Your task to perform on an android device: Open sound settings Image 0: 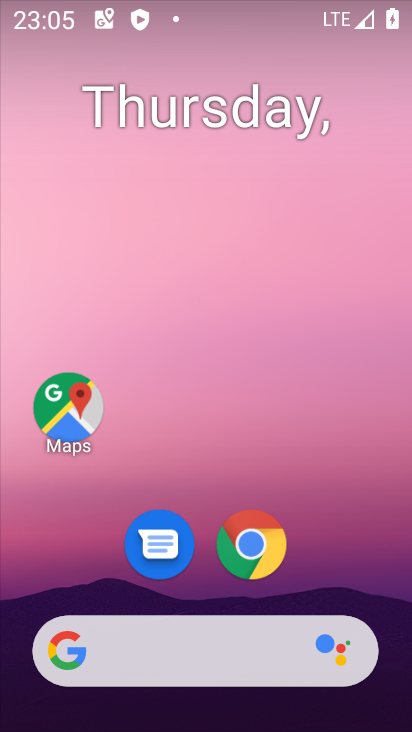
Step 0: press home button
Your task to perform on an android device: Open sound settings Image 1: 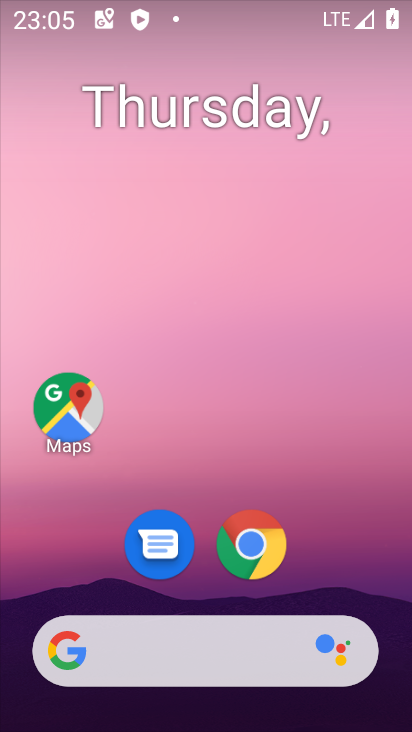
Step 1: drag from (364, 510) to (328, 151)
Your task to perform on an android device: Open sound settings Image 2: 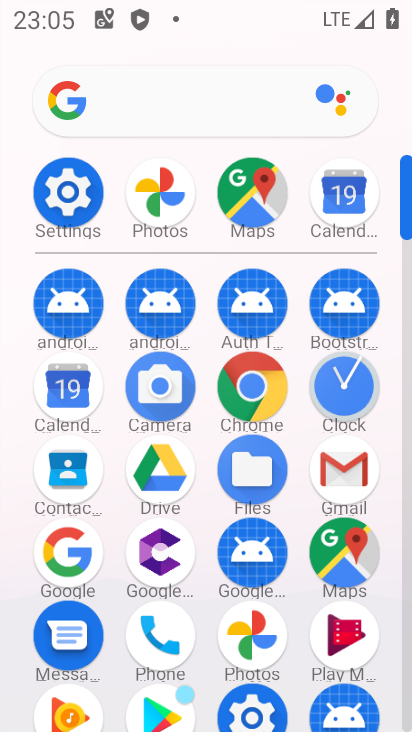
Step 2: click (251, 711)
Your task to perform on an android device: Open sound settings Image 3: 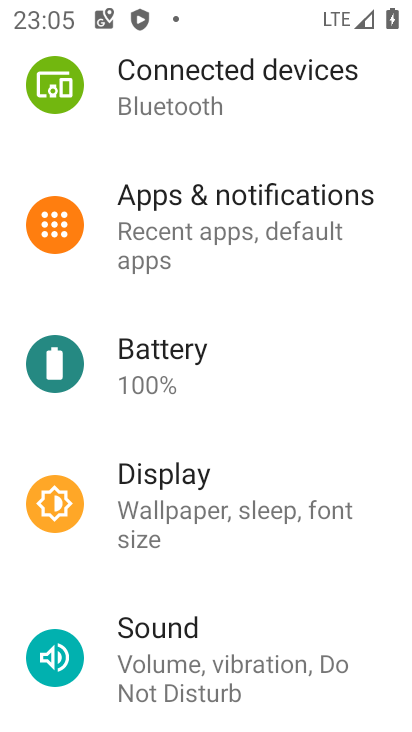
Step 3: click (193, 667)
Your task to perform on an android device: Open sound settings Image 4: 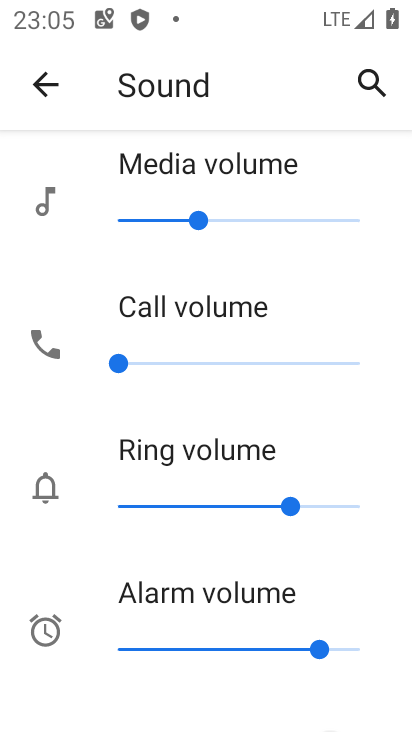
Step 4: drag from (133, 649) to (163, 181)
Your task to perform on an android device: Open sound settings Image 5: 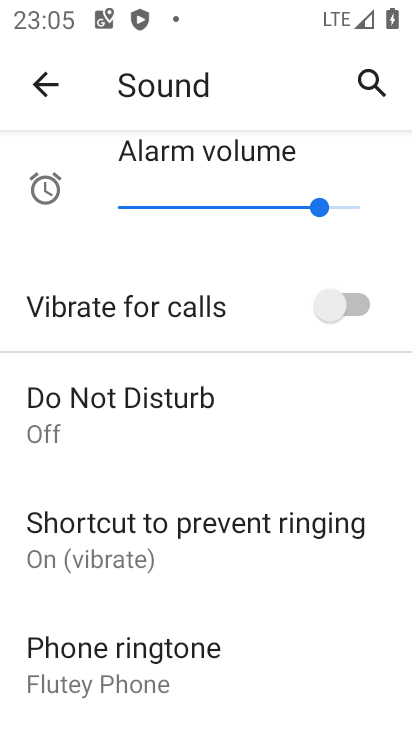
Step 5: drag from (176, 662) to (172, 139)
Your task to perform on an android device: Open sound settings Image 6: 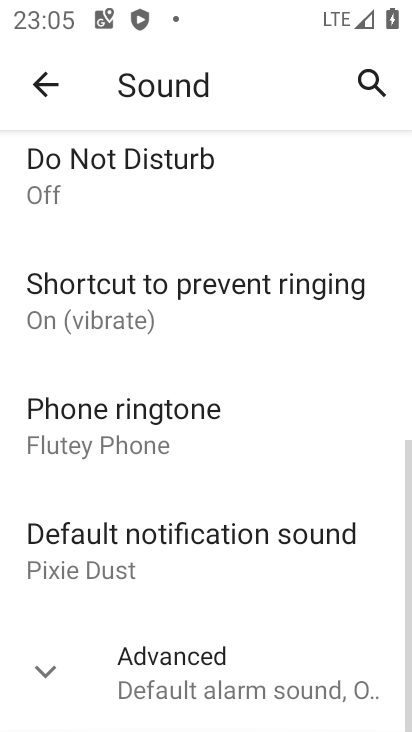
Step 6: click (205, 669)
Your task to perform on an android device: Open sound settings Image 7: 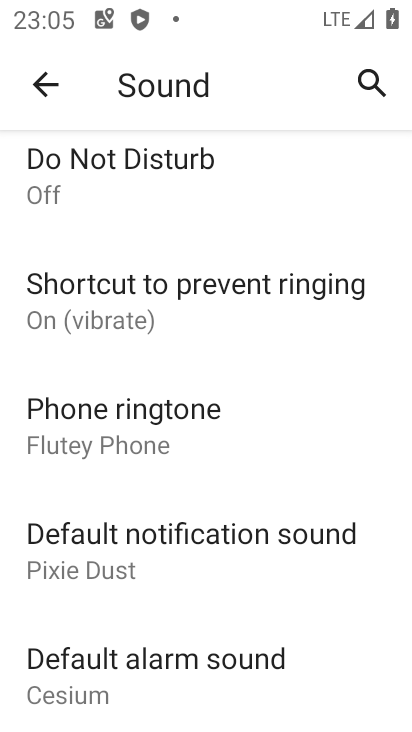
Step 7: task complete